Your task to perform on an android device: visit the assistant section in the google photos Image 0: 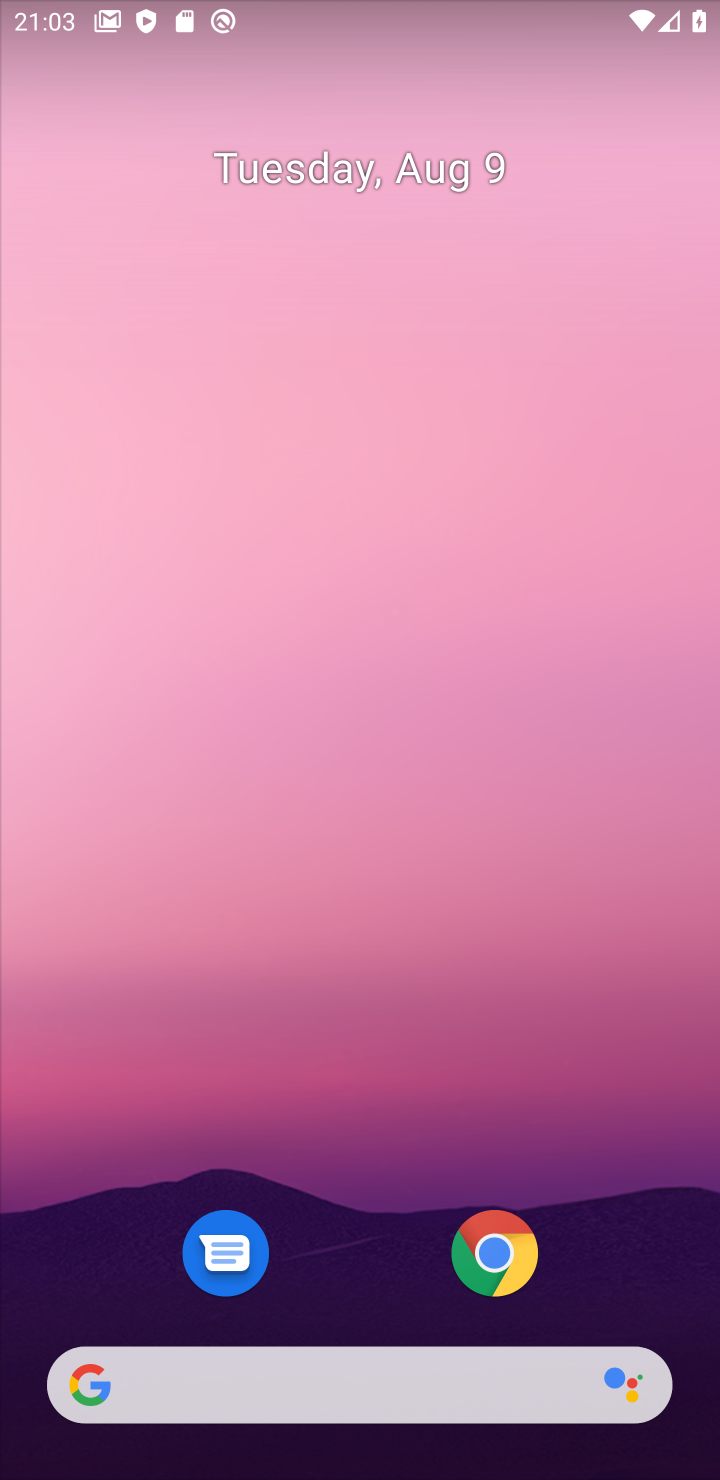
Step 0: drag from (351, 1200) to (571, 0)
Your task to perform on an android device: visit the assistant section in the google photos Image 1: 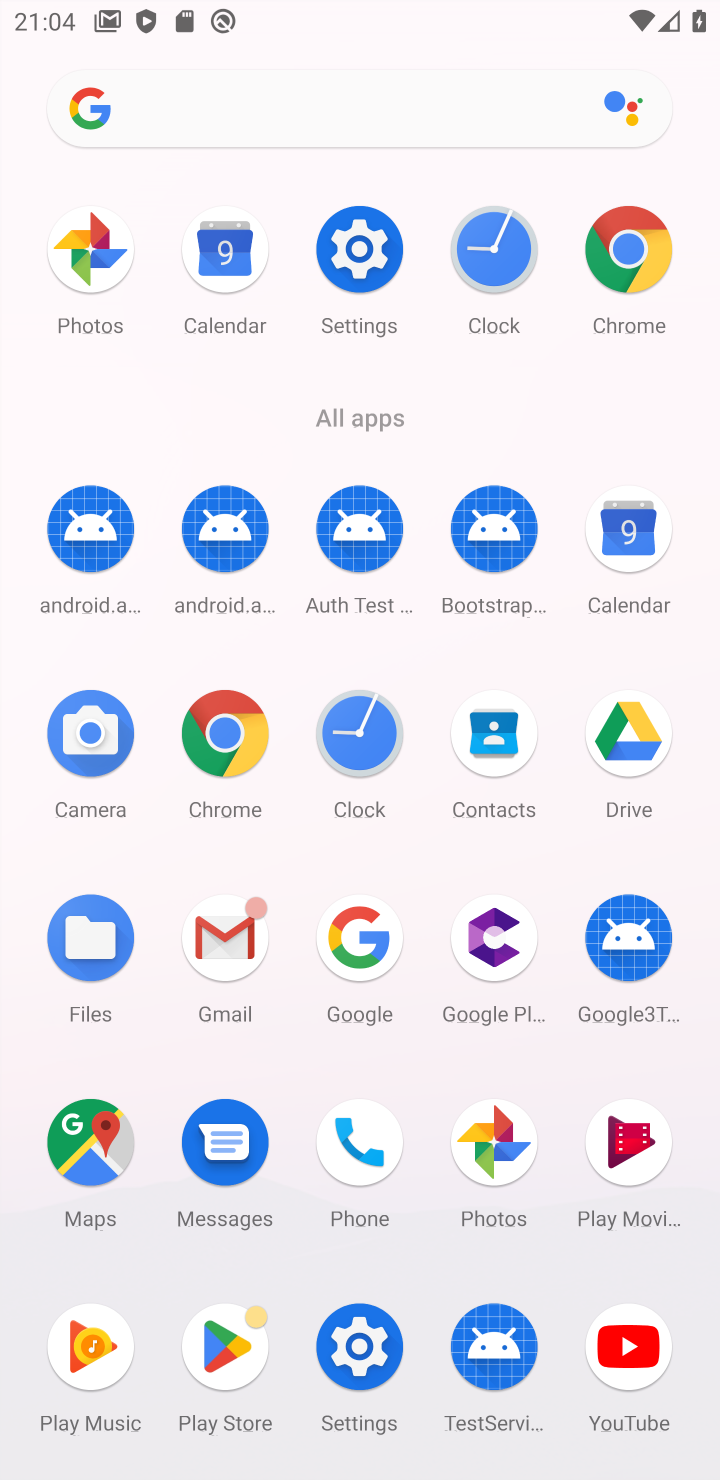
Step 1: click (482, 1149)
Your task to perform on an android device: visit the assistant section in the google photos Image 2: 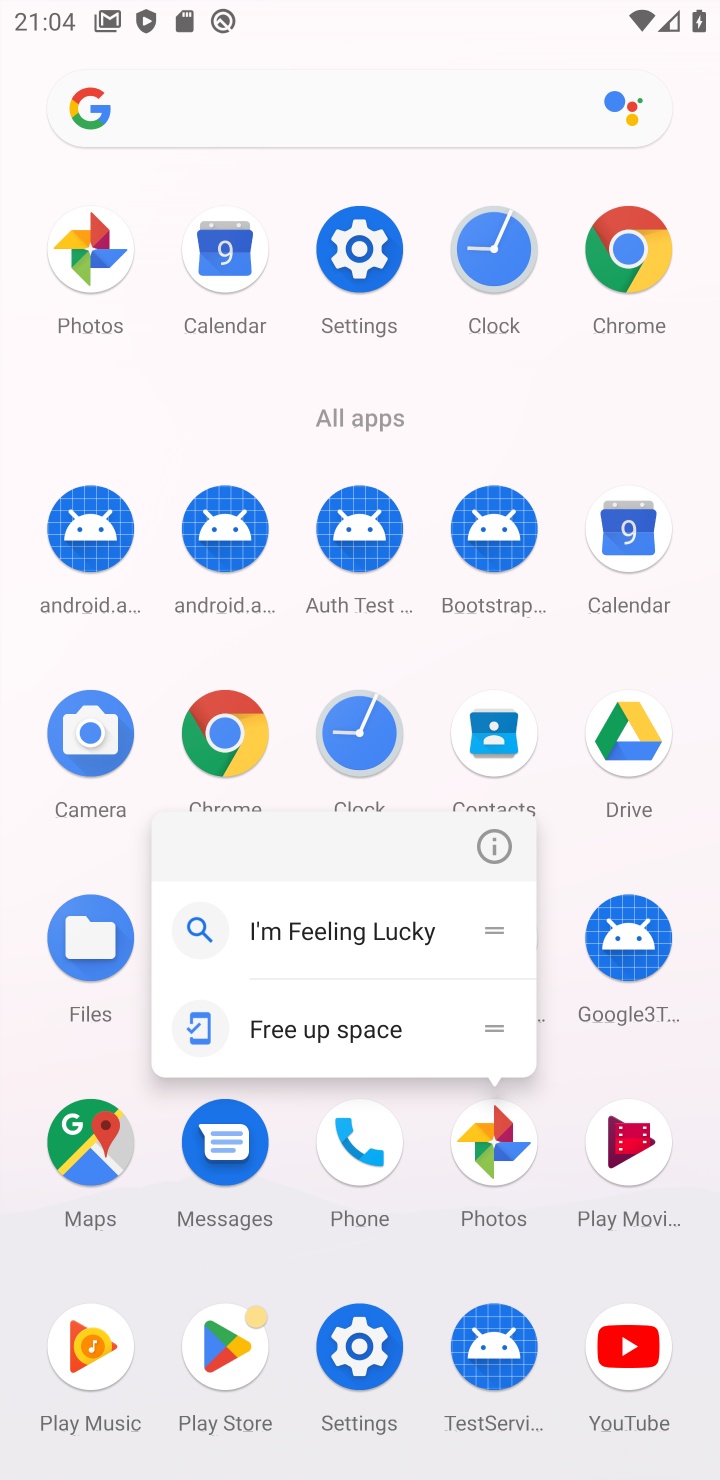
Step 2: click (516, 1131)
Your task to perform on an android device: visit the assistant section in the google photos Image 3: 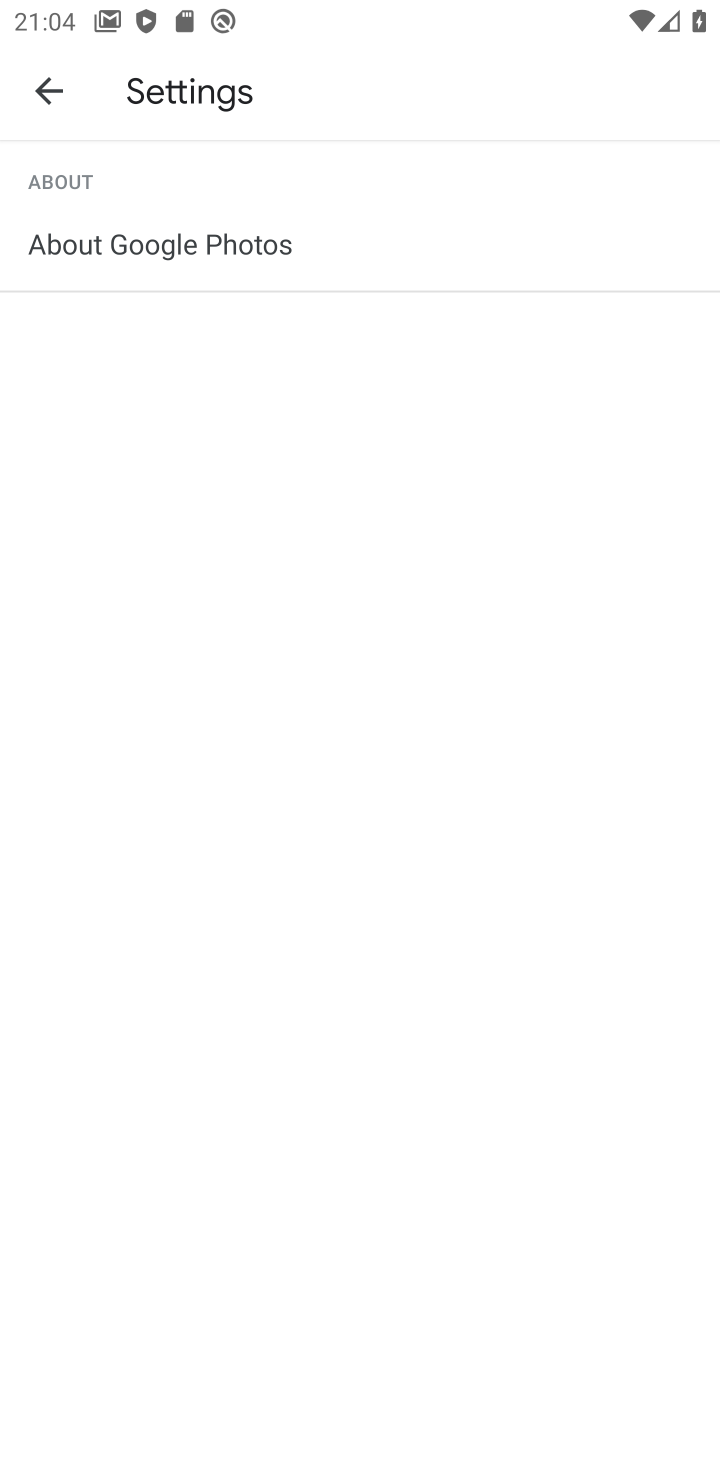
Step 3: click (38, 99)
Your task to perform on an android device: visit the assistant section in the google photos Image 4: 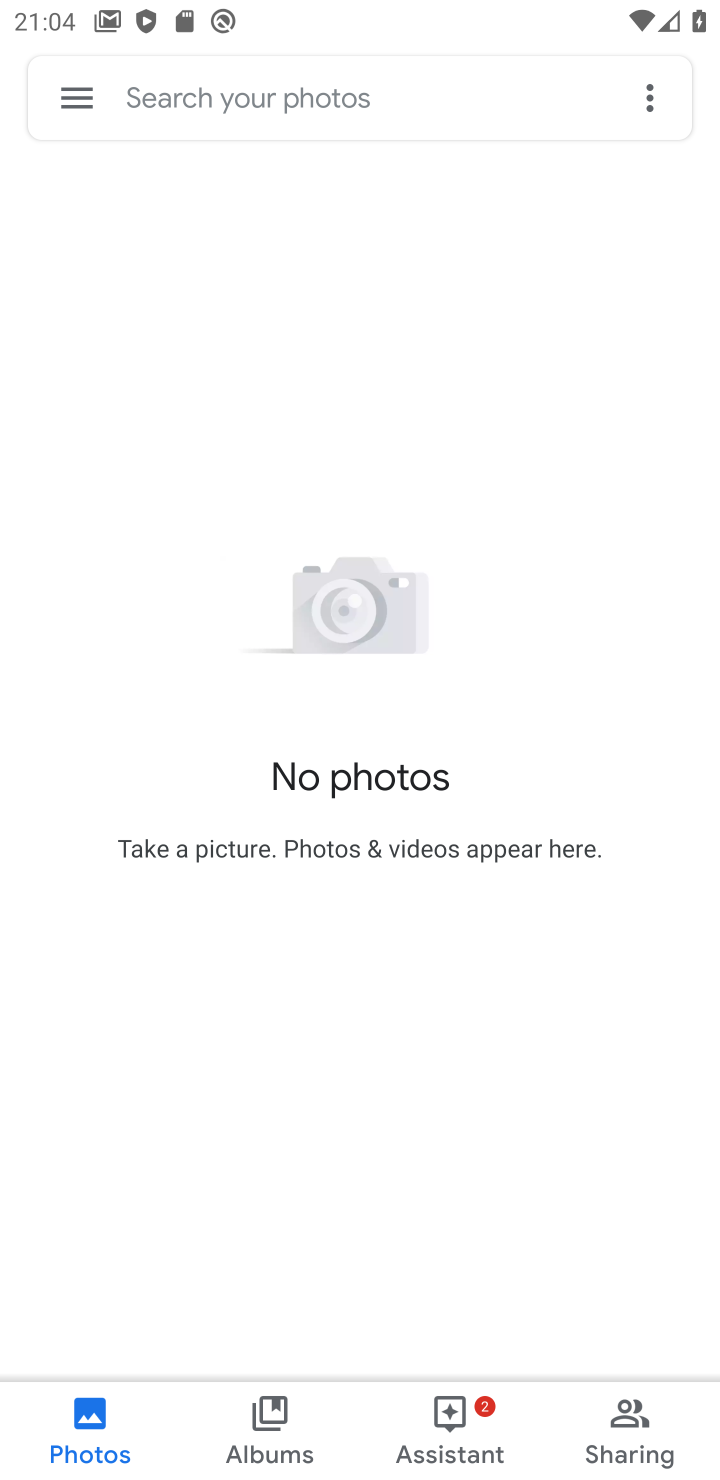
Step 4: click (451, 1461)
Your task to perform on an android device: visit the assistant section in the google photos Image 5: 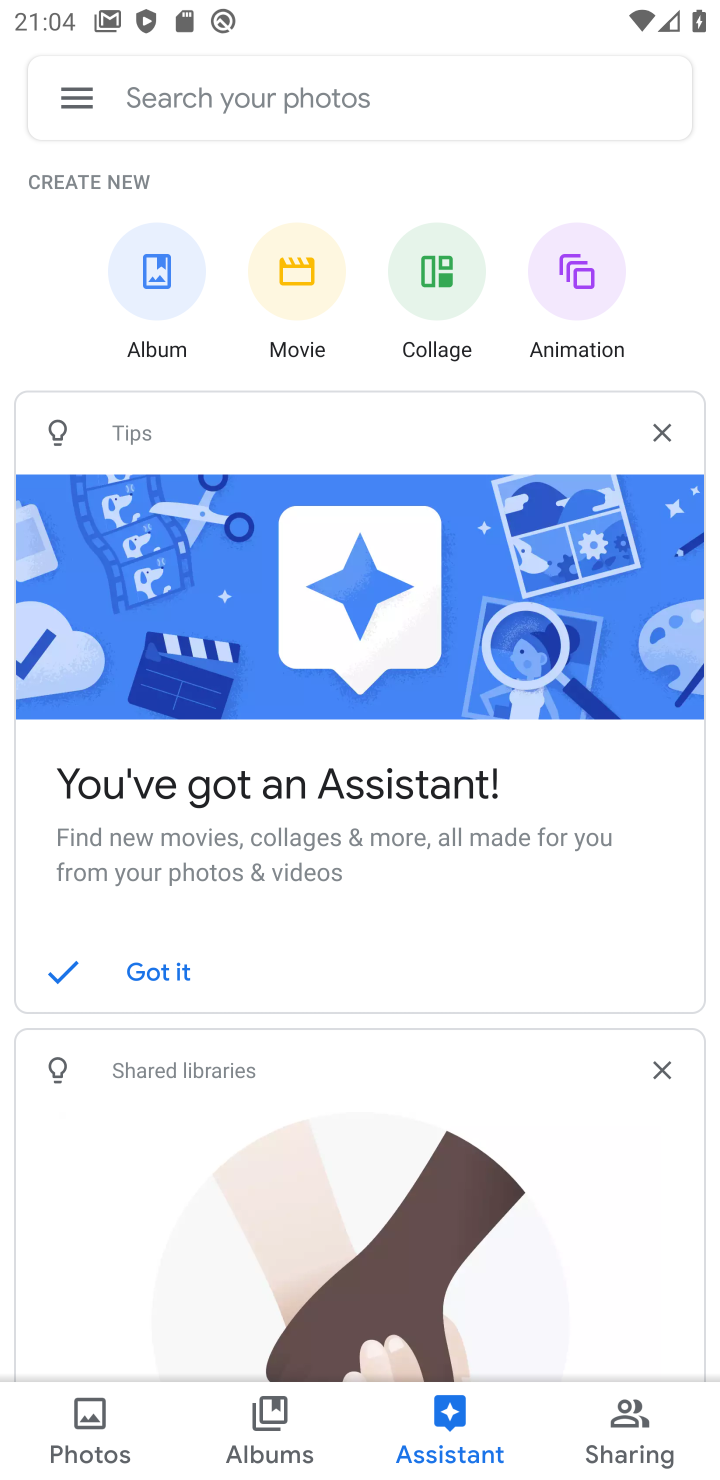
Step 5: task complete